Your task to perform on an android device: Open the map Image 0: 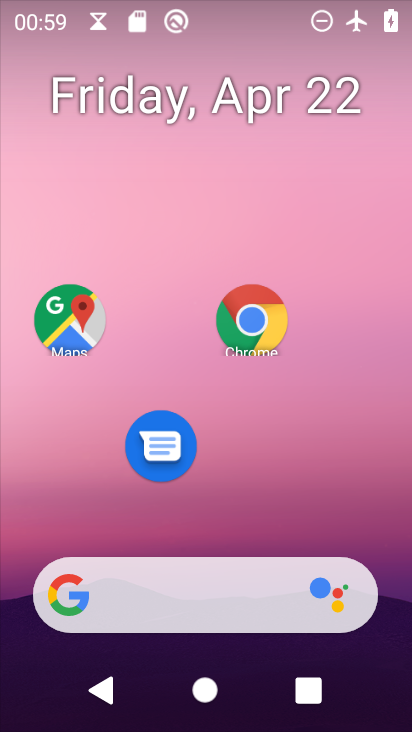
Step 0: click (193, 176)
Your task to perform on an android device: Open the map Image 1: 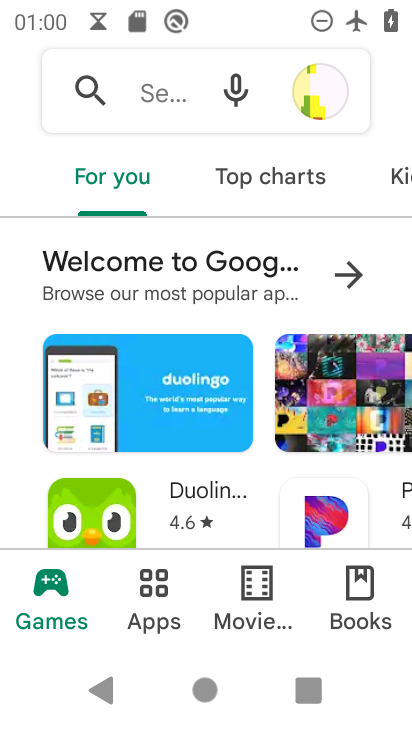
Step 1: press home button
Your task to perform on an android device: Open the map Image 2: 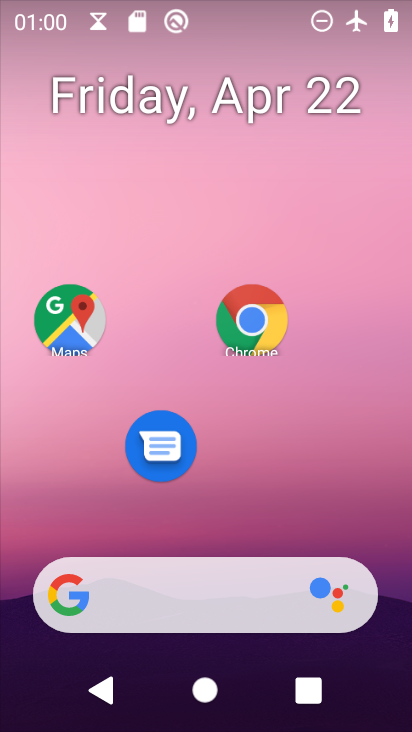
Step 2: drag from (252, 519) to (140, 263)
Your task to perform on an android device: Open the map Image 3: 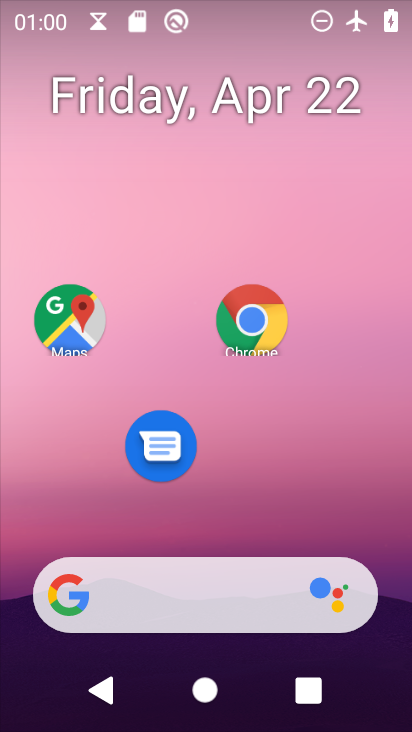
Step 3: drag from (223, 521) to (212, 284)
Your task to perform on an android device: Open the map Image 4: 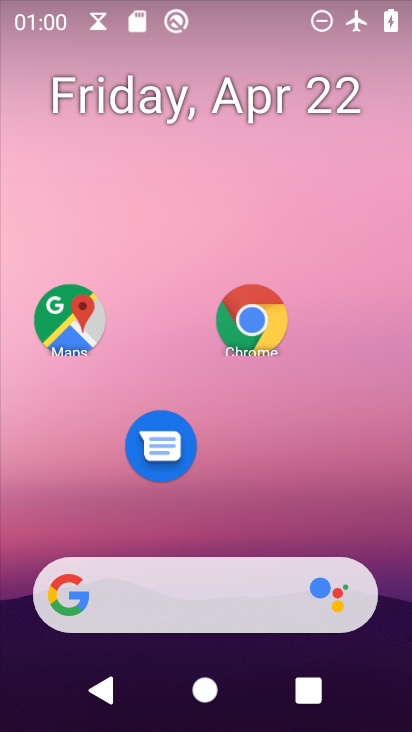
Step 4: drag from (196, 533) to (216, 199)
Your task to perform on an android device: Open the map Image 5: 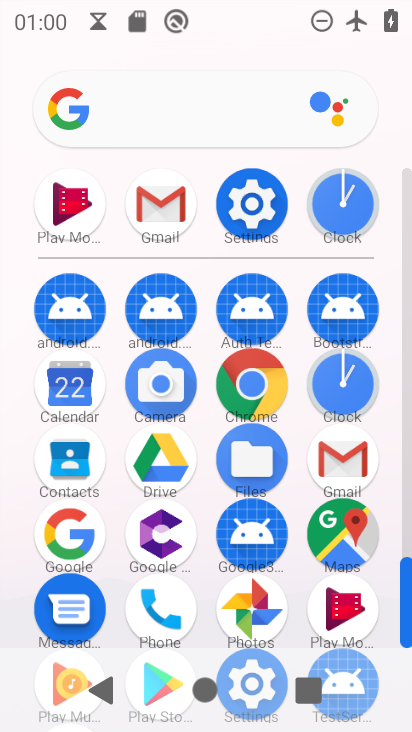
Step 5: drag from (213, 630) to (206, 231)
Your task to perform on an android device: Open the map Image 6: 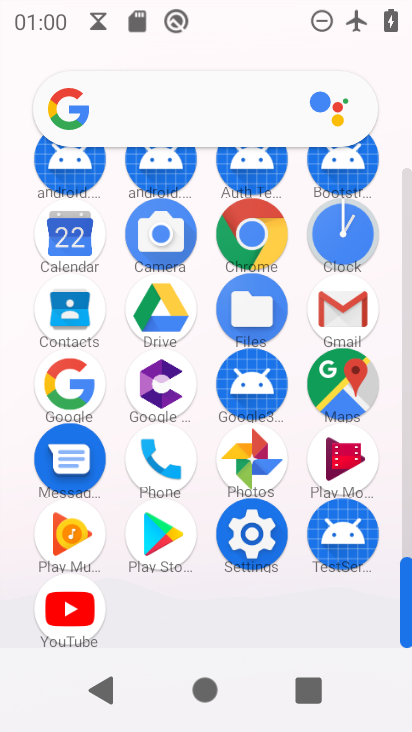
Step 6: click (359, 379)
Your task to perform on an android device: Open the map Image 7: 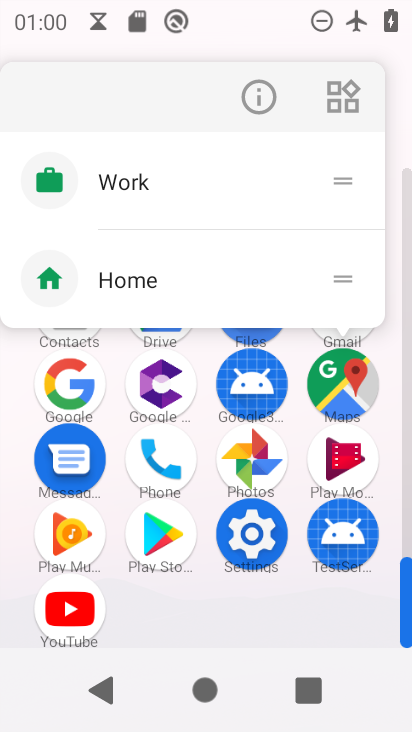
Step 7: click (269, 87)
Your task to perform on an android device: Open the map Image 8: 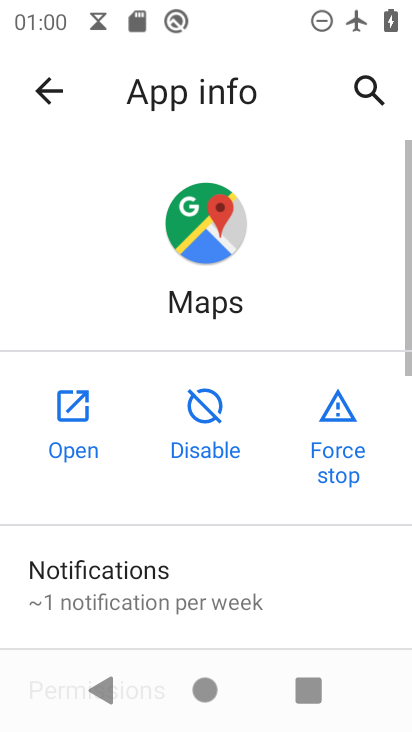
Step 8: click (80, 420)
Your task to perform on an android device: Open the map Image 9: 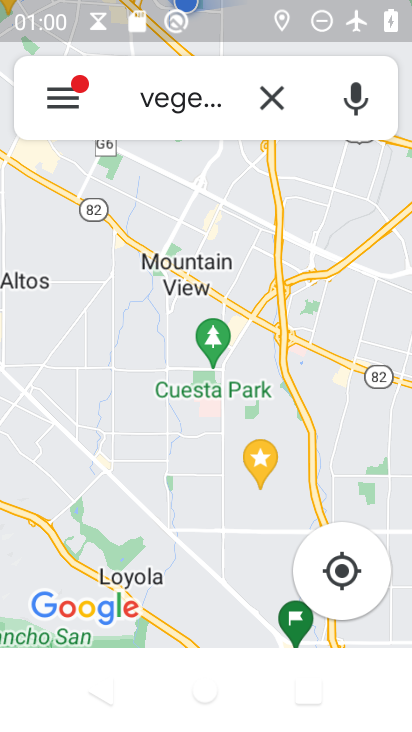
Step 9: task complete